Your task to perform on an android device: check storage Image 0: 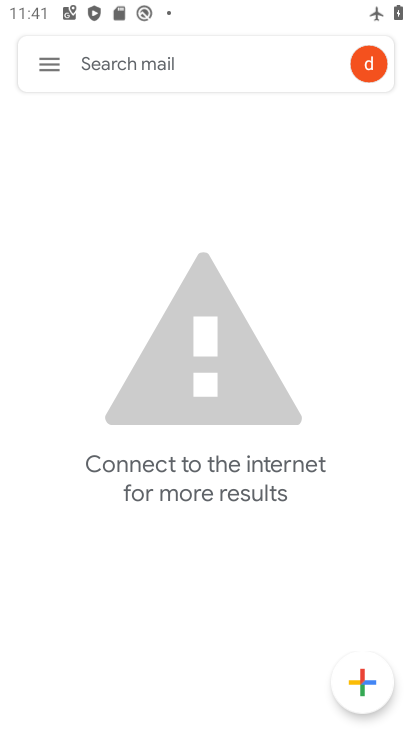
Step 0: press home button
Your task to perform on an android device: check storage Image 1: 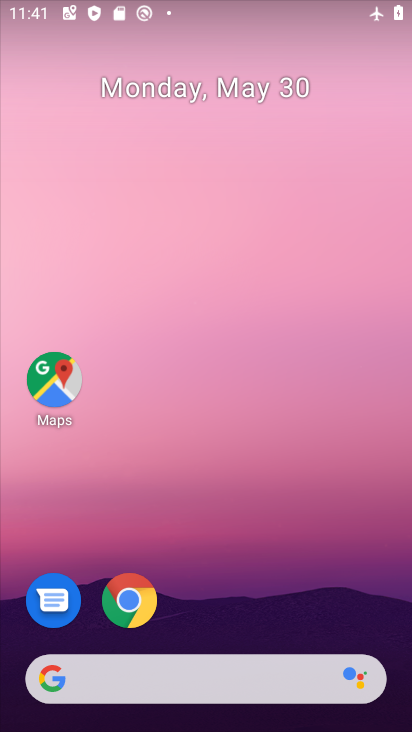
Step 1: drag from (234, 699) to (236, 86)
Your task to perform on an android device: check storage Image 2: 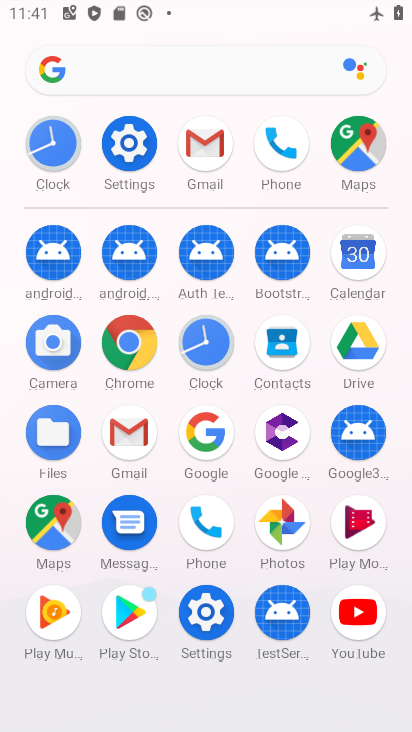
Step 2: click (133, 145)
Your task to perform on an android device: check storage Image 3: 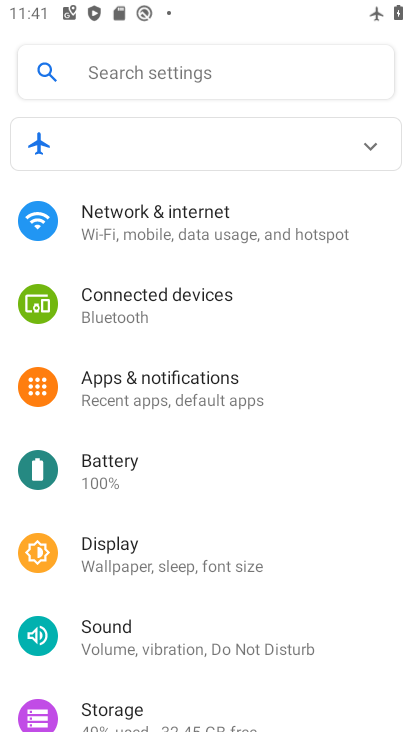
Step 3: click (118, 712)
Your task to perform on an android device: check storage Image 4: 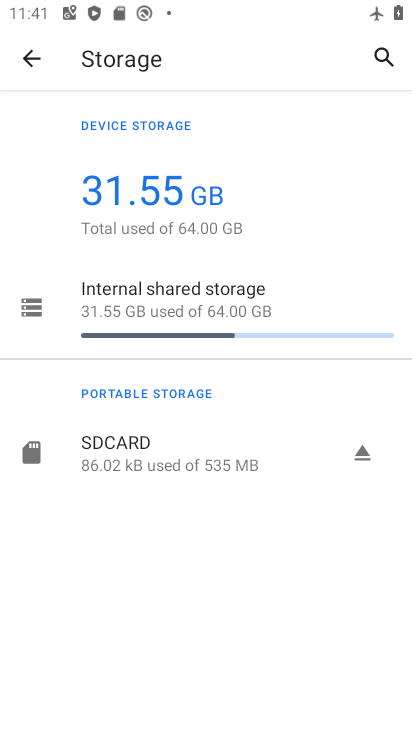
Step 4: task complete